Your task to perform on an android device: Go to eBay Image 0: 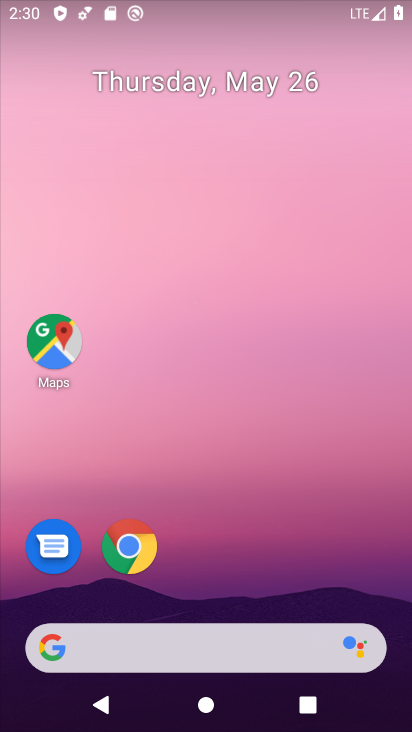
Step 0: click (133, 551)
Your task to perform on an android device: Go to eBay Image 1: 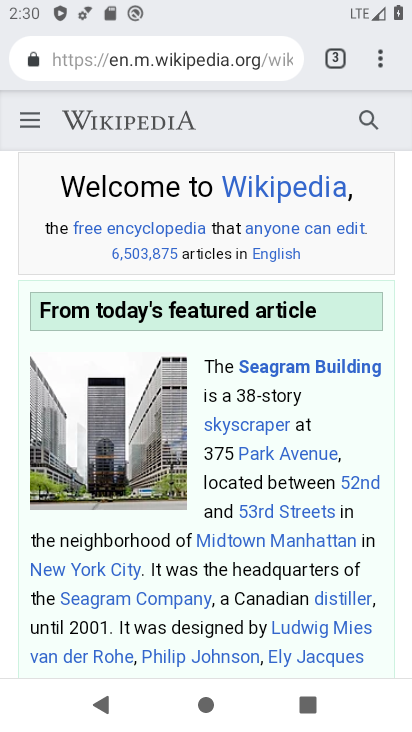
Step 1: click (340, 60)
Your task to perform on an android device: Go to eBay Image 2: 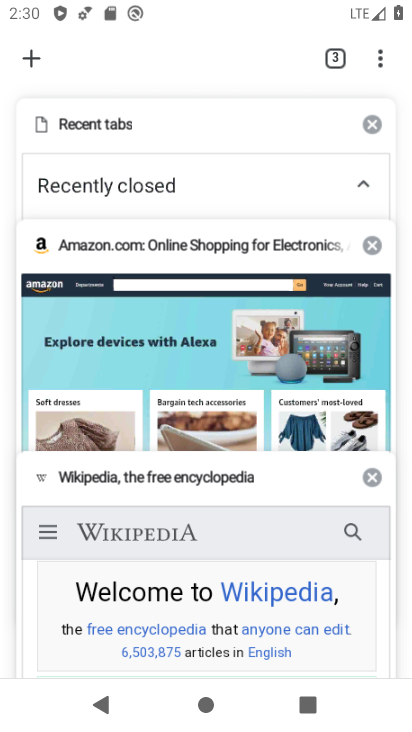
Step 2: click (18, 41)
Your task to perform on an android device: Go to eBay Image 3: 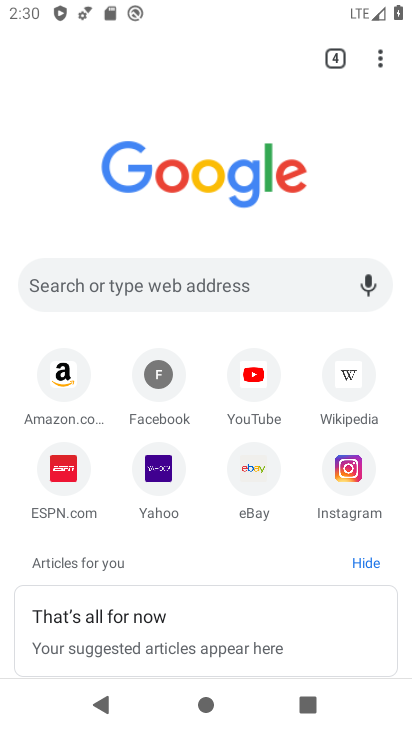
Step 3: click (254, 472)
Your task to perform on an android device: Go to eBay Image 4: 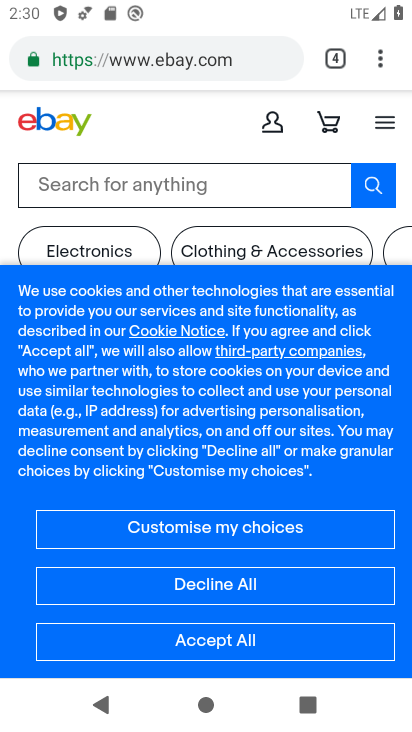
Step 4: task complete